Your task to perform on an android device: choose inbox layout in the gmail app Image 0: 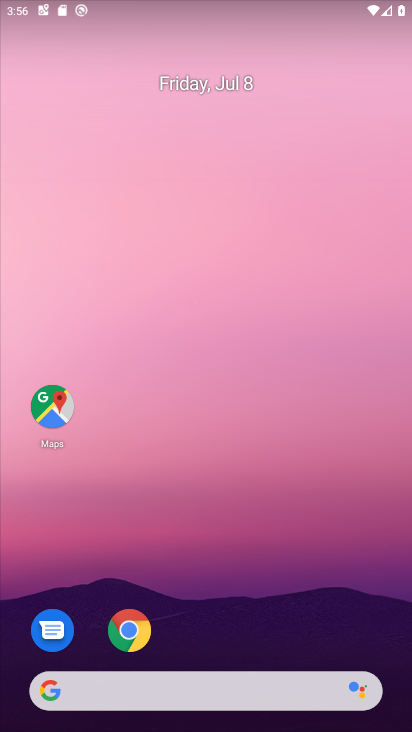
Step 0: drag from (265, 557) to (226, 68)
Your task to perform on an android device: choose inbox layout in the gmail app Image 1: 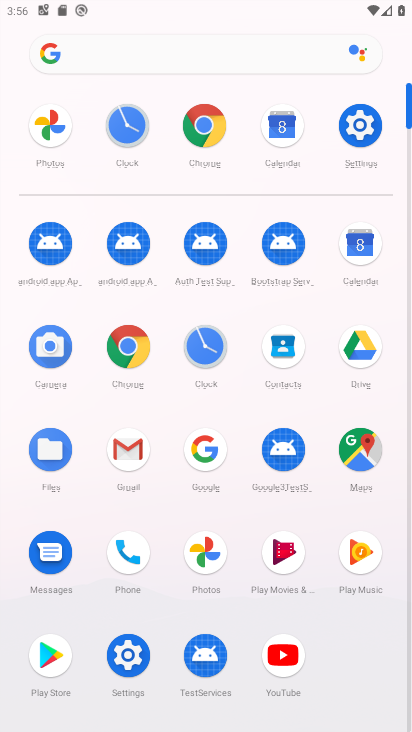
Step 1: click (129, 446)
Your task to perform on an android device: choose inbox layout in the gmail app Image 2: 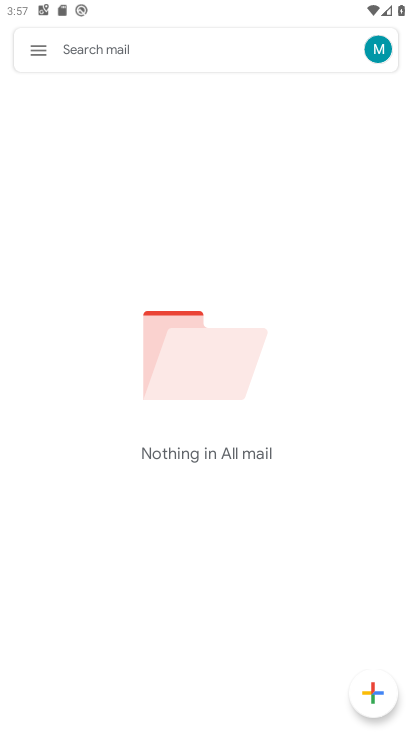
Step 2: click (34, 49)
Your task to perform on an android device: choose inbox layout in the gmail app Image 3: 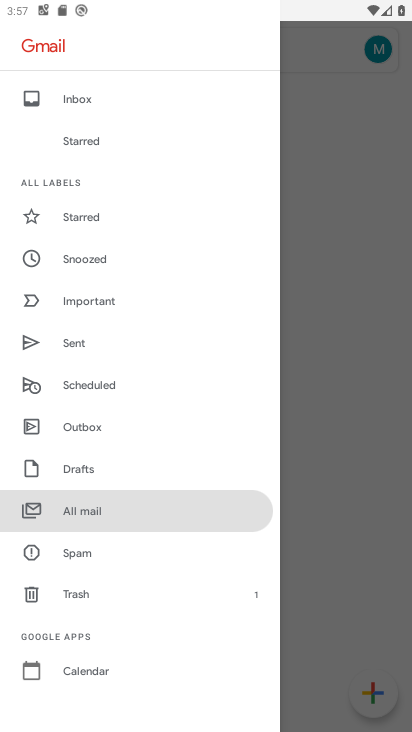
Step 3: drag from (76, 631) to (147, 160)
Your task to perform on an android device: choose inbox layout in the gmail app Image 4: 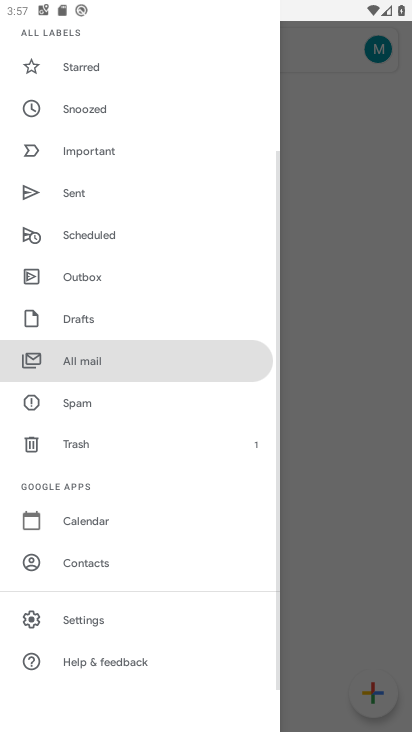
Step 4: click (75, 620)
Your task to perform on an android device: choose inbox layout in the gmail app Image 5: 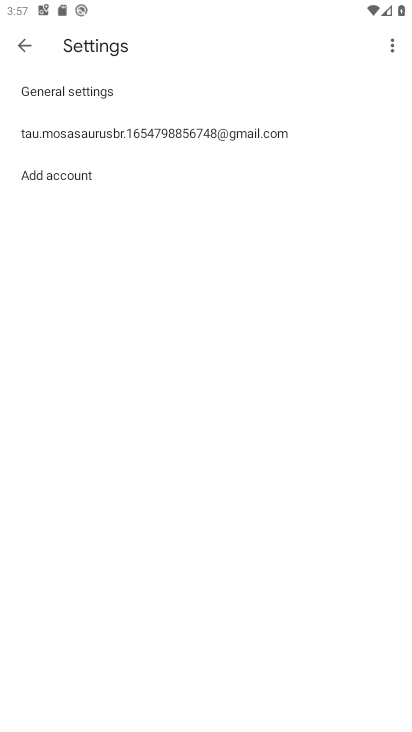
Step 5: click (206, 129)
Your task to perform on an android device: choose inbox layout in the gmail app Image 6: 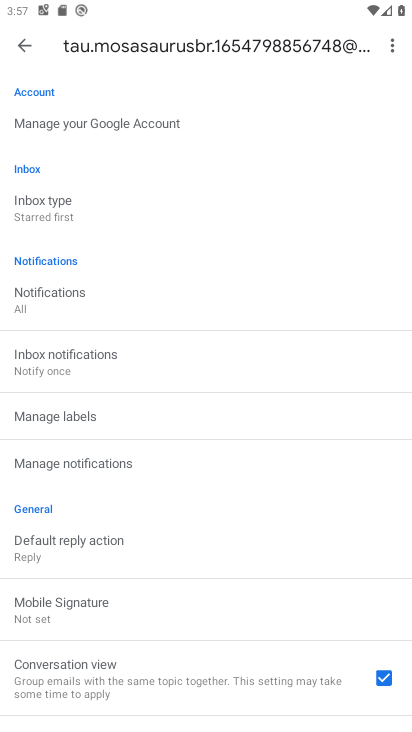
Step 6: click (56, 202)
Your task to perform on an android device: choose inbox layout in the gmail app Image 7: 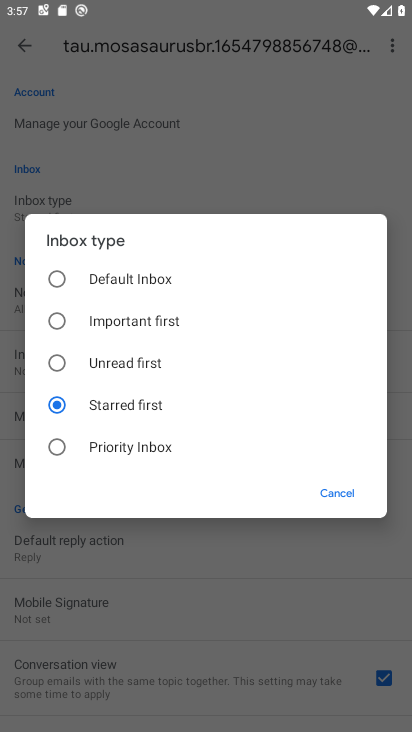
Step 7: task complete